Your task to perform on an android device: add a contact in the contacts app Image 0: 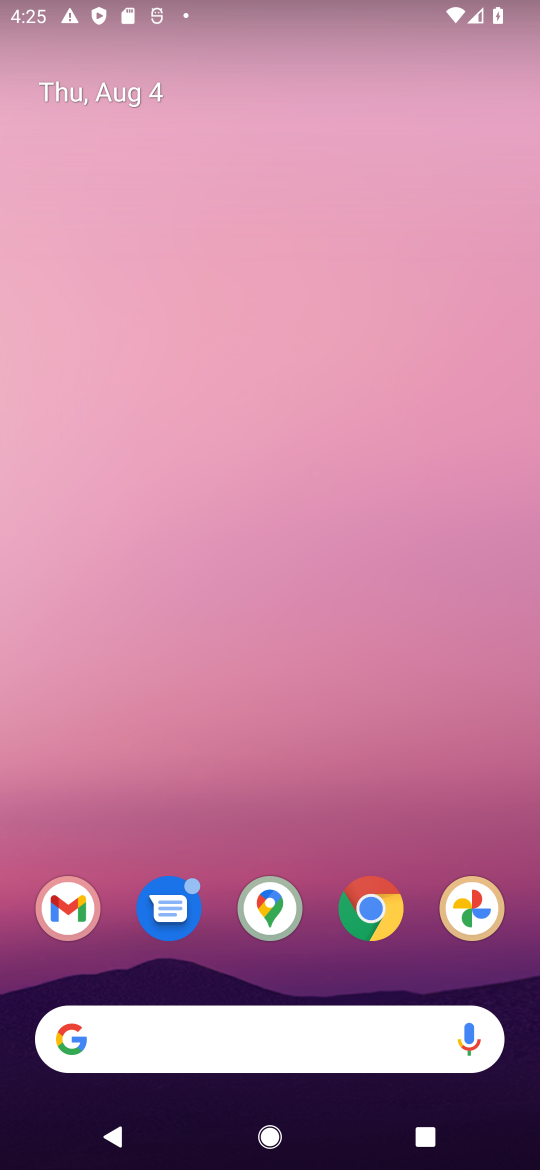
Step 0: drag from (301, 967) to (324, 113)
Your task to perform on an android device: add a contact in the contacts app Image 1: 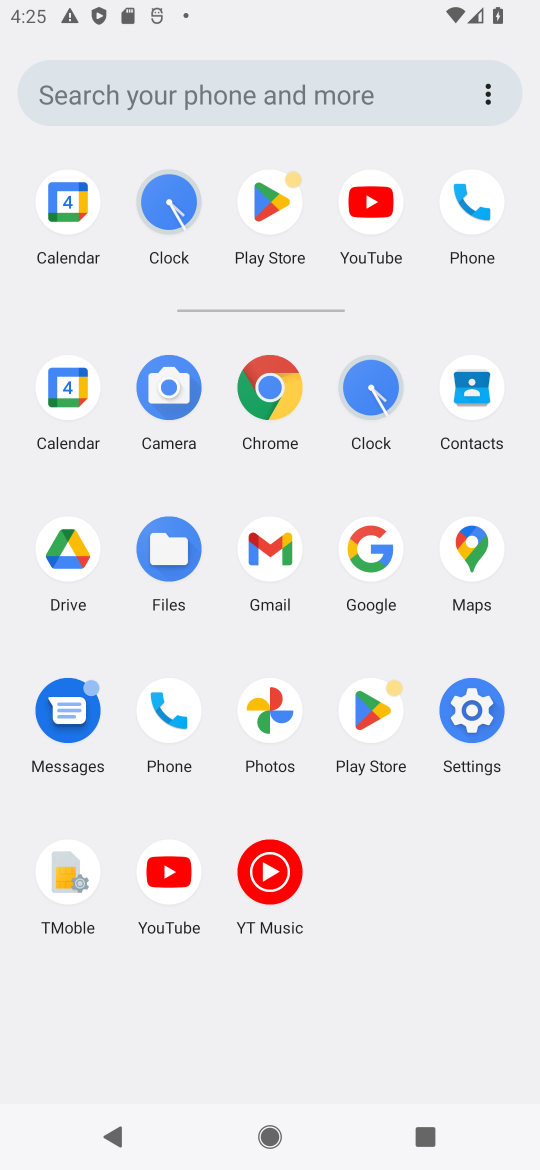
Step 1: click (481, 214)
Your task to perform on an android device: add a contact in the contacts app Image 2: 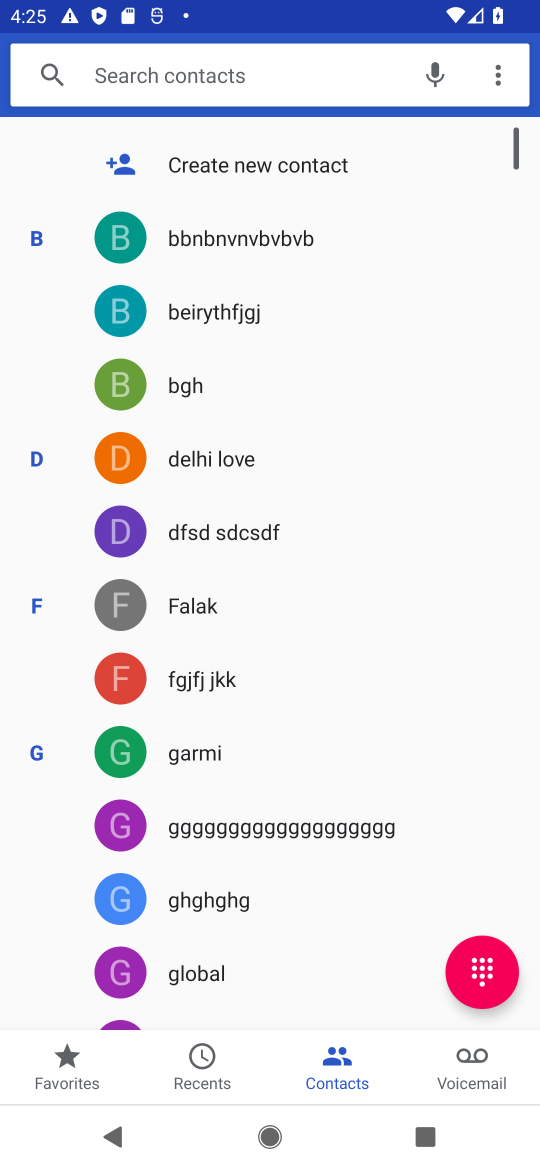
Step 2: click (232, 166)
Your task to perform on an android device: add a contact in the contacts app Image 3: 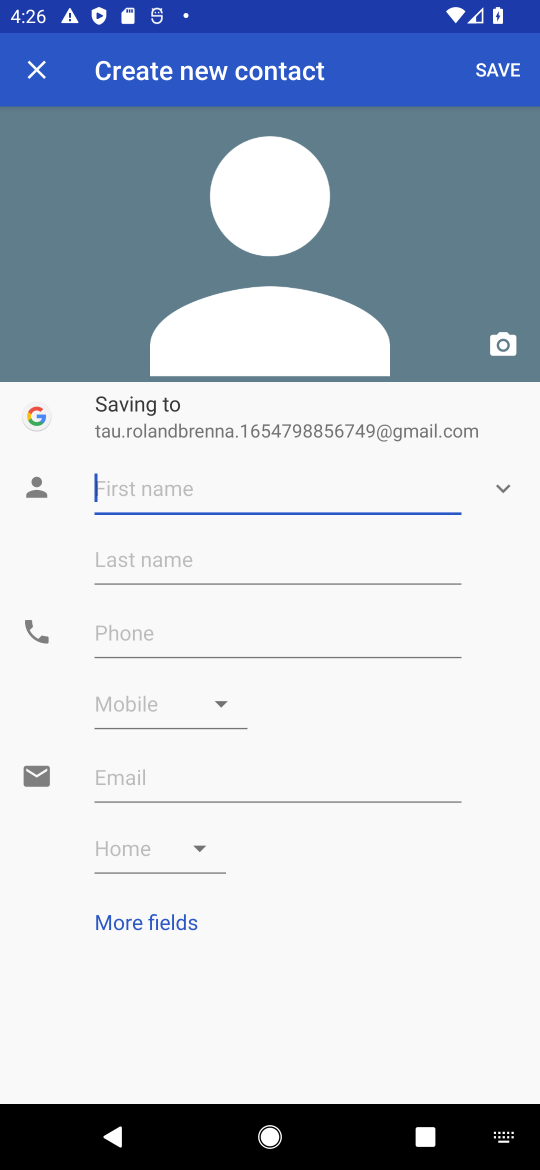
Step 3: type "hfhhhhf"
Your task to perform on an android device: add a contact in the contacts app Image 4: 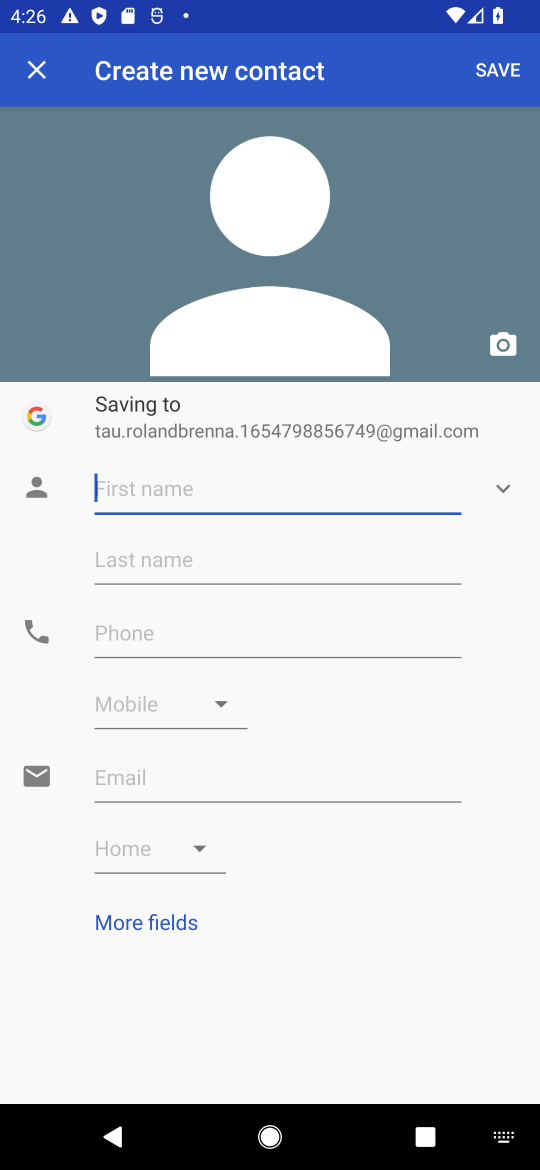
Step 4: click (148, 612)
Your task to perform on an android device: add a contact in the contacts app Image 5: 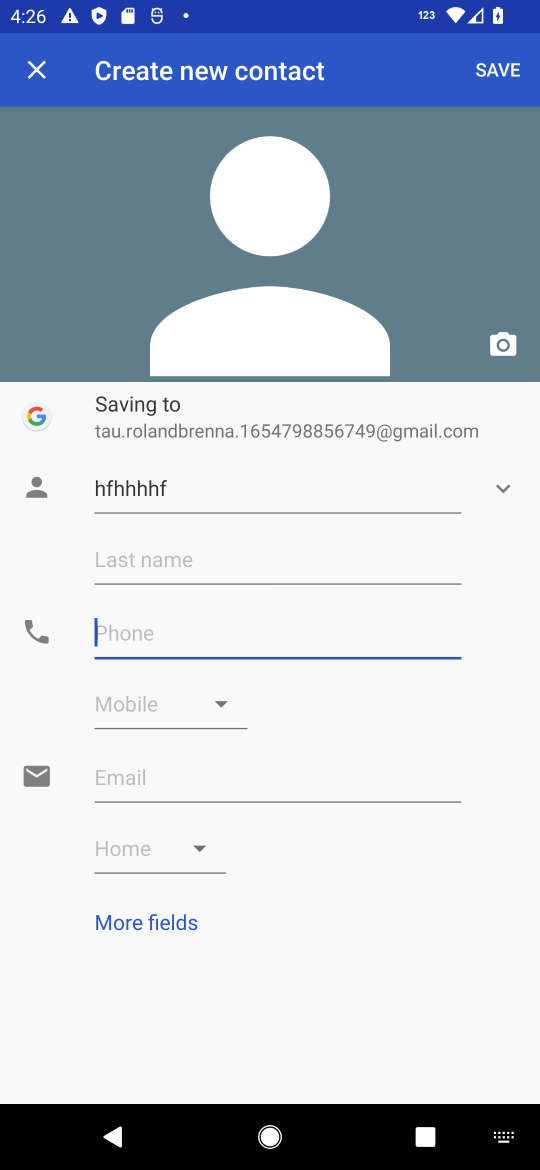
Step 5: type "45667577"
Your task to perform on an android device: add a contact in the contacts app Image 6: 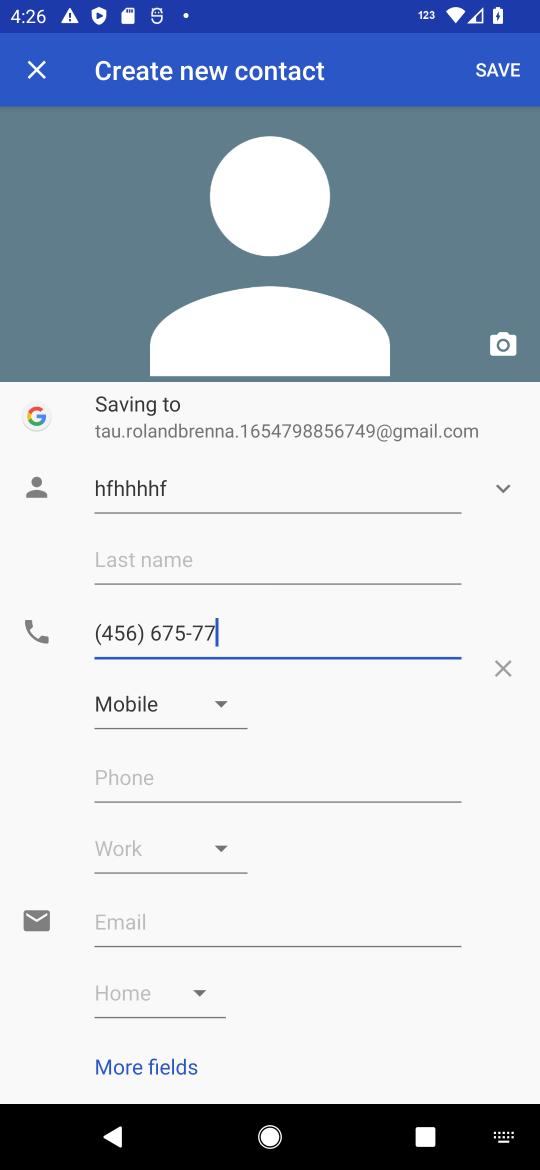
Step 6: click (500, 66)
Your task to perform on an android device: add a contact in the contacts app Image 7: 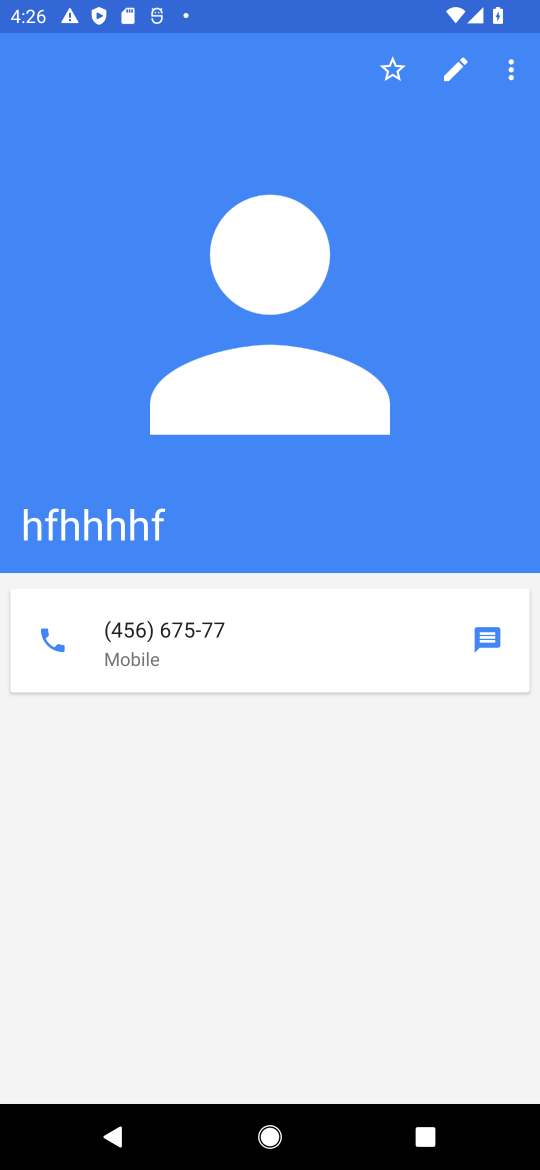
Step 7: task complete